Your task to perform on an android device: Go to network settings Image 0: 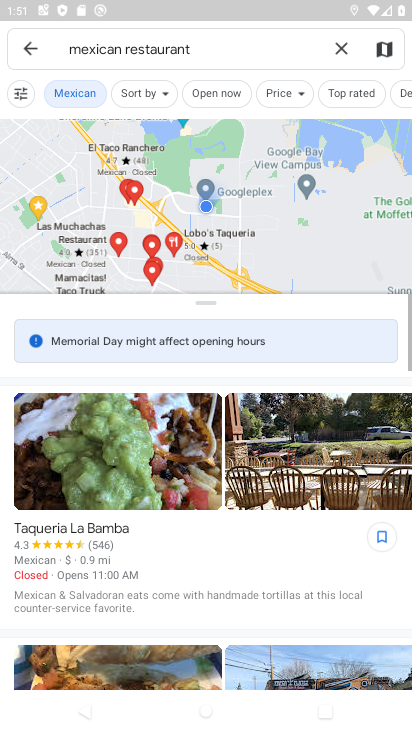
Step 0: press home button
Your task to perform on an android device: Go to network settings Image 1: 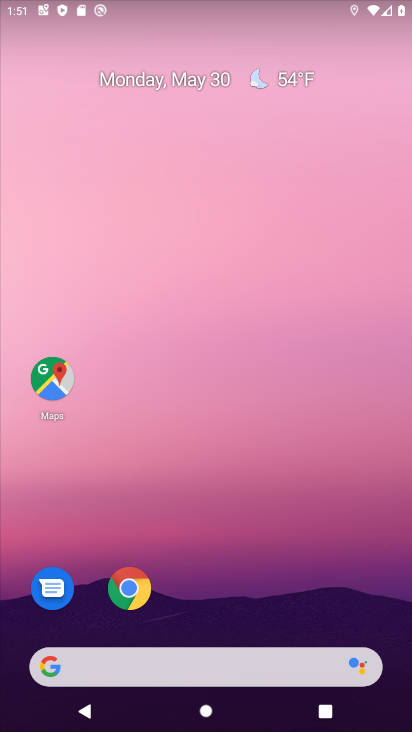
Step 1: drag from (208, 585) to (248, 82)
Your task to perform on an android device: Go to network settings Image 2: 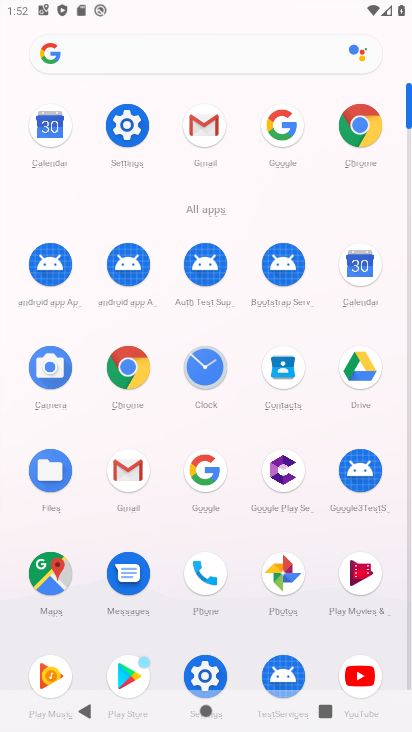
Step 2: click (126, 134)
Your task to perform on an android device: Go to network settings Image 3: 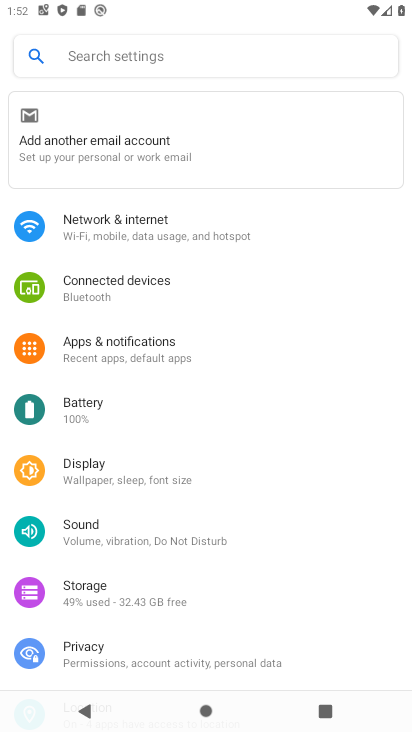
Step 3: click (183, 239)
Your task to perform on an android device: Go to network settings Image 4: 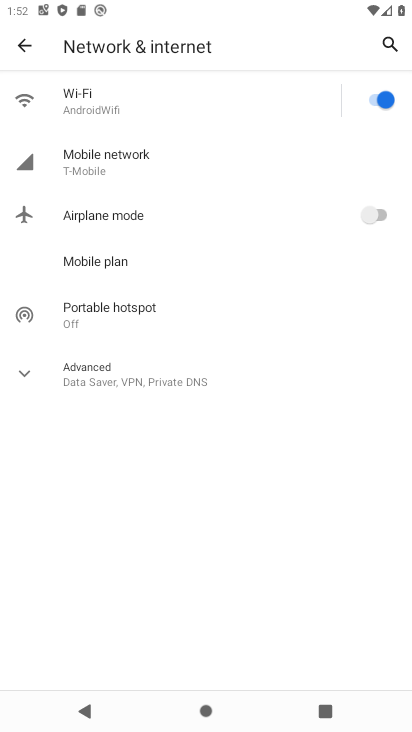
Step 4: click (125, 171)
Your task to perform on an android device: Go to network settings Image 5: 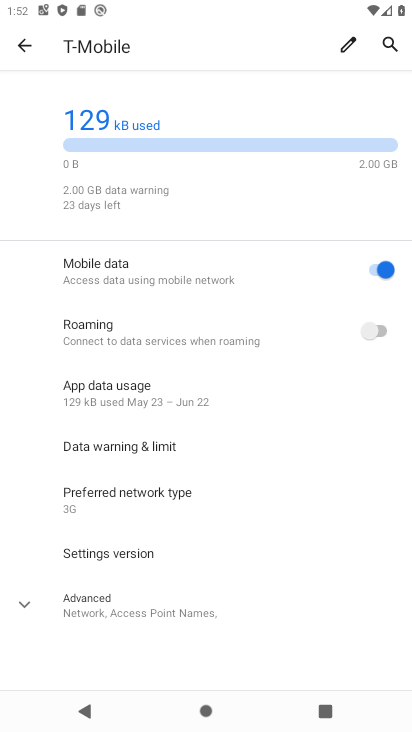
Step 5: task complete